Your task to perform on an android device: toggle javascript in the chrome app Image 0: 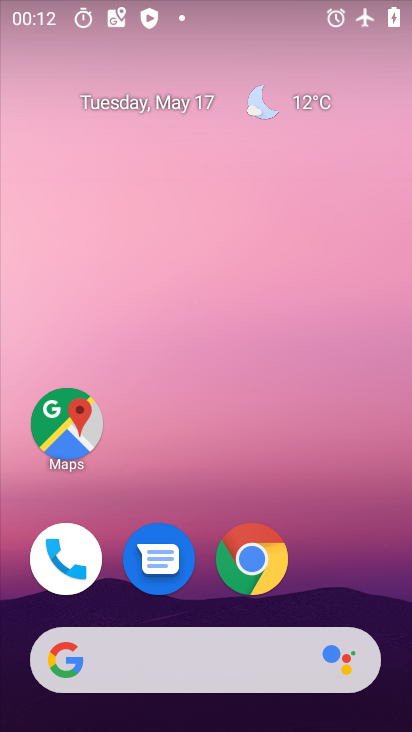
Step 0: click (249, 554)
Your task to perform on an android device: toggle javascript in the chrome app Image 1: 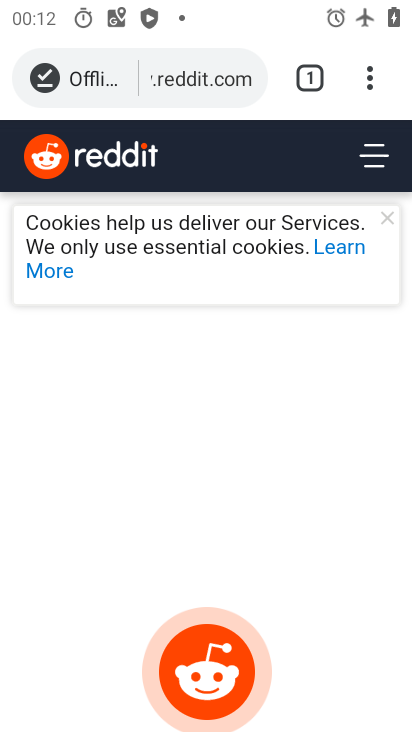
Step 1: drag from (371, 70) to (149, 624)
Your task to perform on an android device: toggle javascript in the chrome app Image 2: 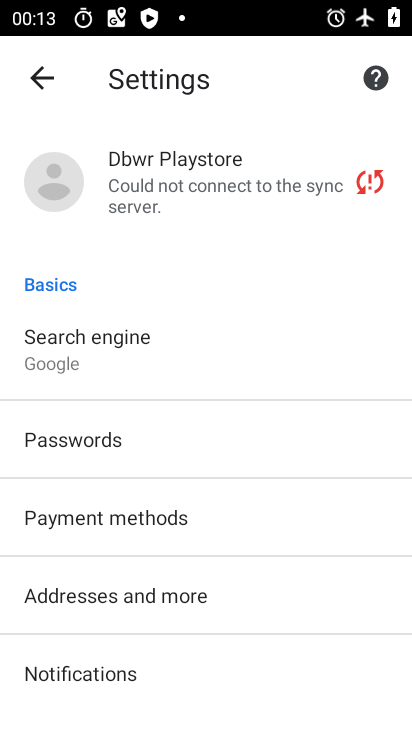
Step 2: drag from (149, 516) to (83, 126)
Your task to perform on an android device: toggle javascript in the chrome app Image 3: 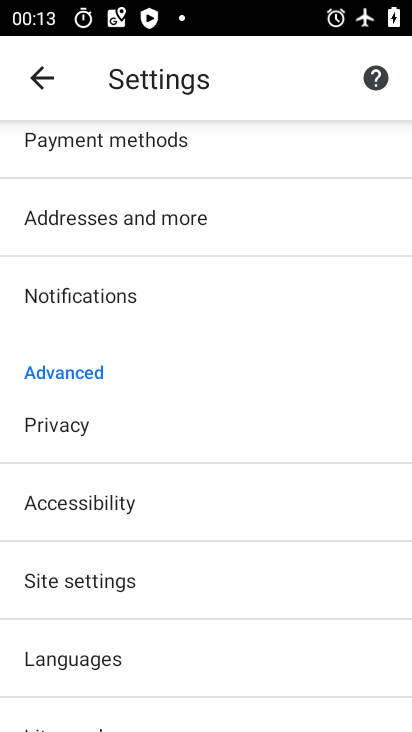
Step 3: click (90, 575)
Your task to perform on an android device: toggle javascript in the chrome app Image 4: 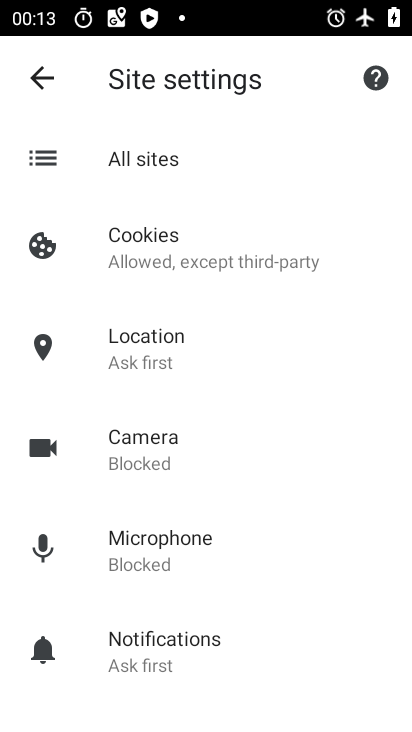
Step 4: drag from (201, 646) to (208, 300)
Your task to perform on an android device: toggle javascript in the chrome app Image 5: 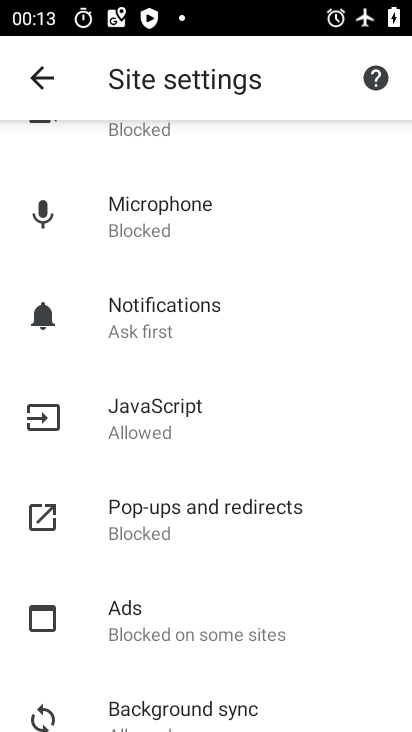
Step 5: click (202, 413)
Your task to perform on an android device: toggle javascript in the chrome app Image 6: 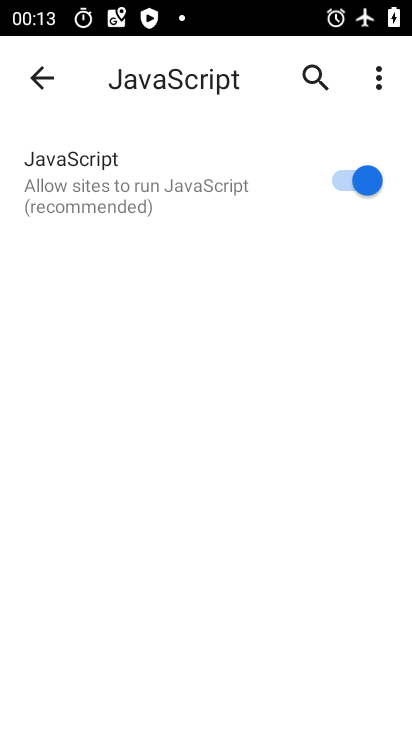
Step 6: click (343, 189)
Your task to perform on an android device: toggle javascript in the chrome app Image 7: 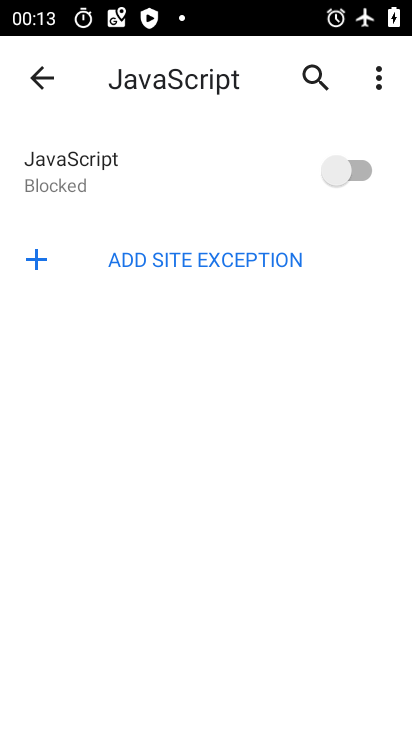
Step 7: task complete